Your task to perform on an android device: turn off data saver in the chrome app Image 0: 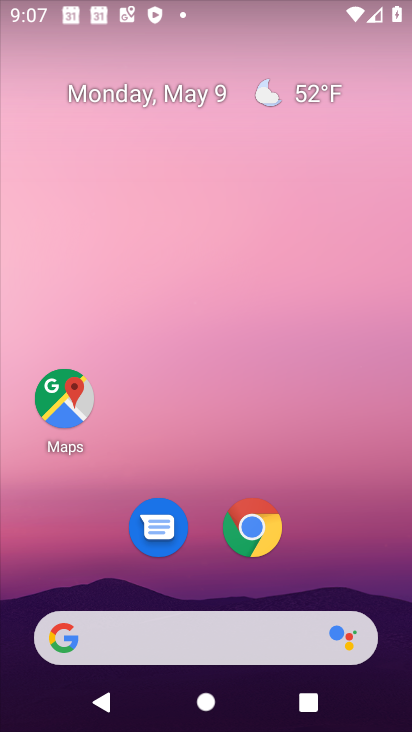
Step 0: click (252, 523)
Your task to perform on an android device: turn off data saver in the chrome app Image 1: 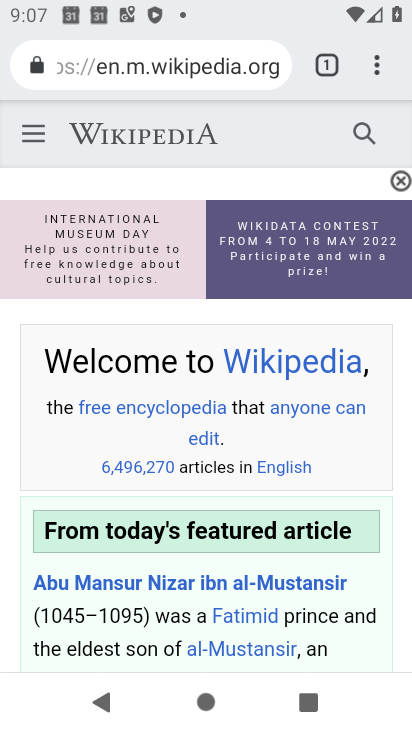
Step 1: click (371, 58)
Your task to perform on an android device: turn off data saver in the chrome app Image 2: 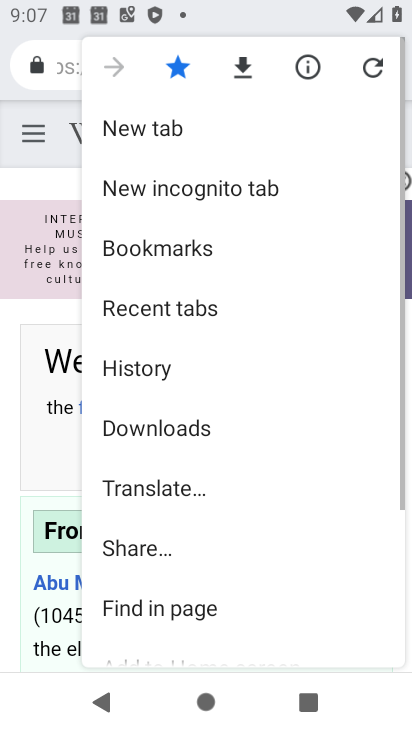
Step 2: drag from (209, 554) to (243, 123)
Your task to perform on an android device: turn off data saver in the chrome app Image 3: 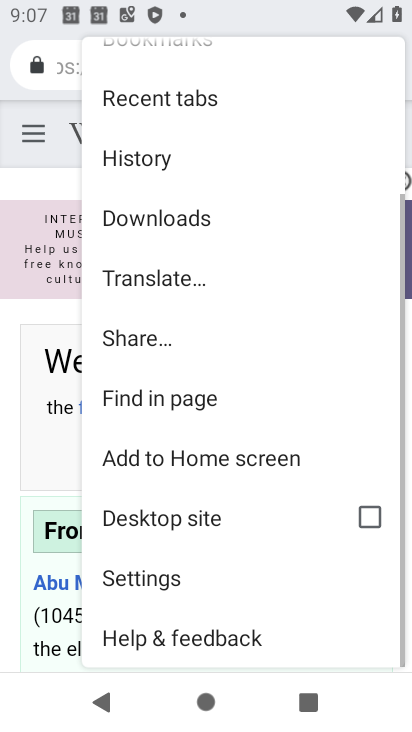
Step 3: click (179, 564)
Your task to perform on an android device: turn off data saver in the chrome app Image 4: 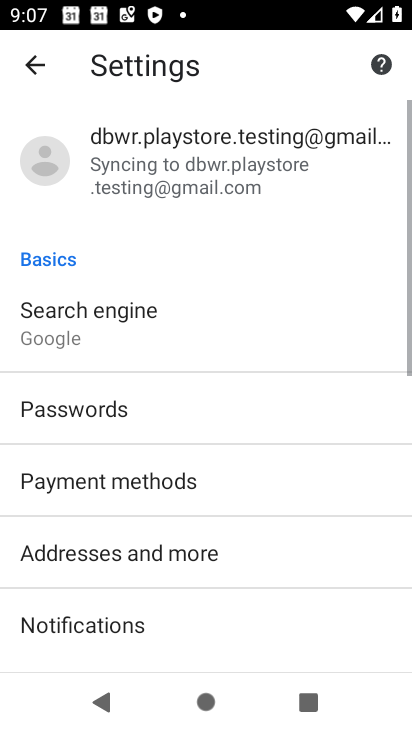
Step 4: drag from (209, 593) to (177, 147)
Your task to perform on an android device: turn off data saver in the chrome app Image 5: 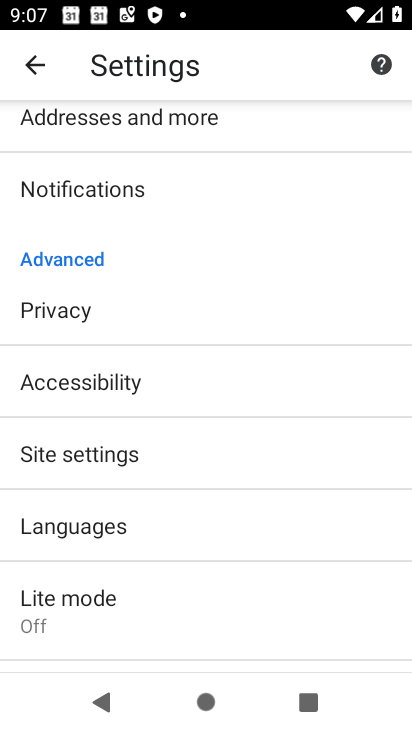
Step 5: click (137, 598)
Your task to perform on an android device: turn off data saver in the chrome app Image 6: 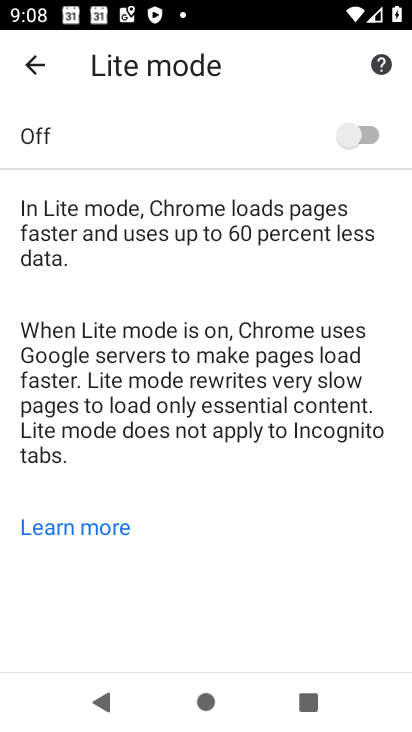
Step 6: task complete